Your task to perform on an android device: toggle pop-ups in chrome Image 0: 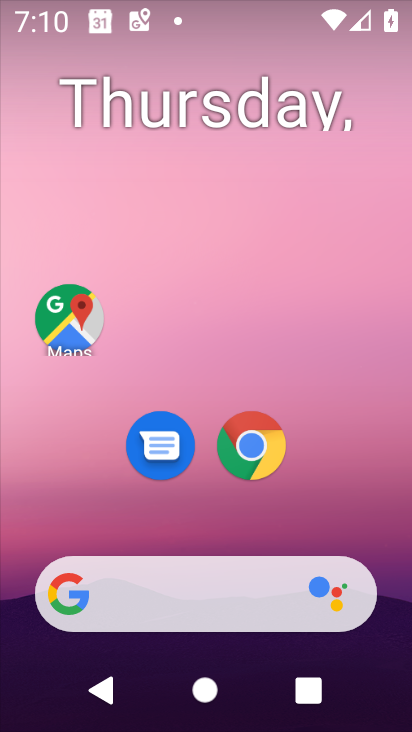
Step 0: drag from (392, 600) to (302, 67)
Your task to perform on an android device: toggle pop-ups in chrome Image 1: 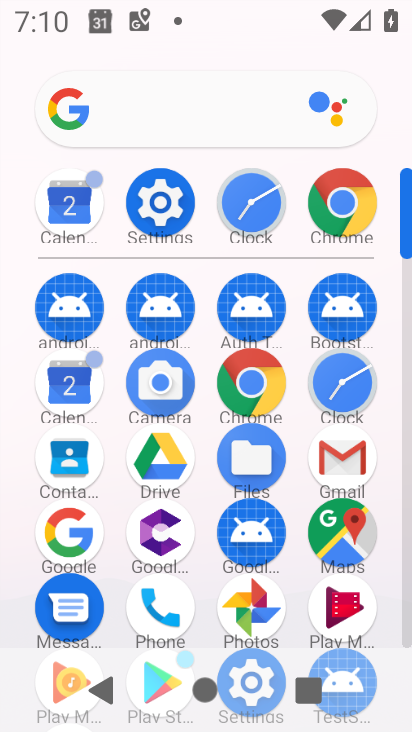
Step 1: click (359, 213)
Your task to perform on an android device: toggle pop-ups in chrome Image 2: 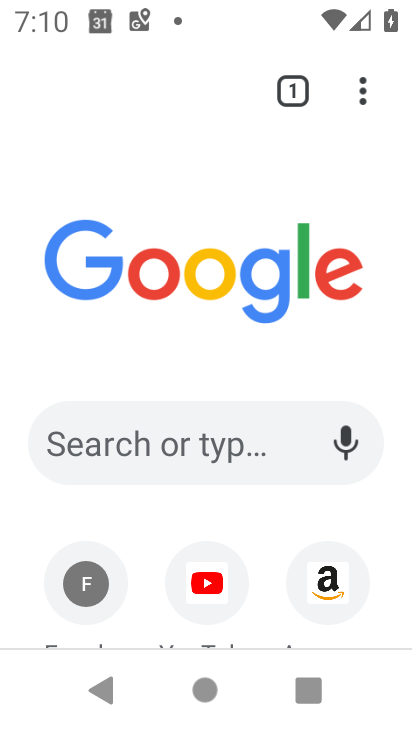
Step 2: click (357, 80)
Your task to perform on an android device: toggle pop-ups in chrome Image 3: 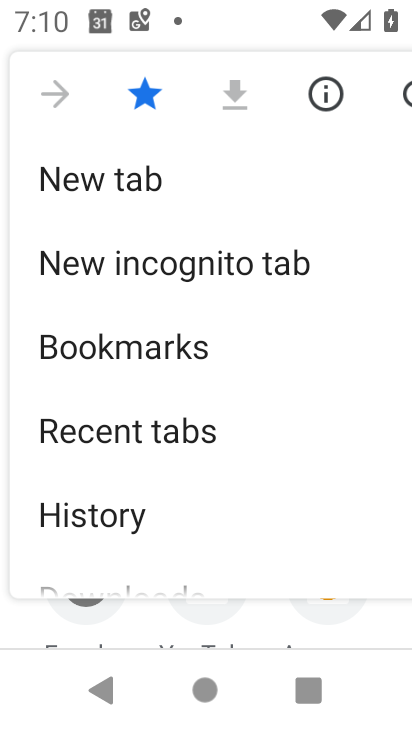
Step 3: drag from (176, 526) to (182, 62)
Your task to perform on an android device: toggle pop-ups in chrome Image 4: 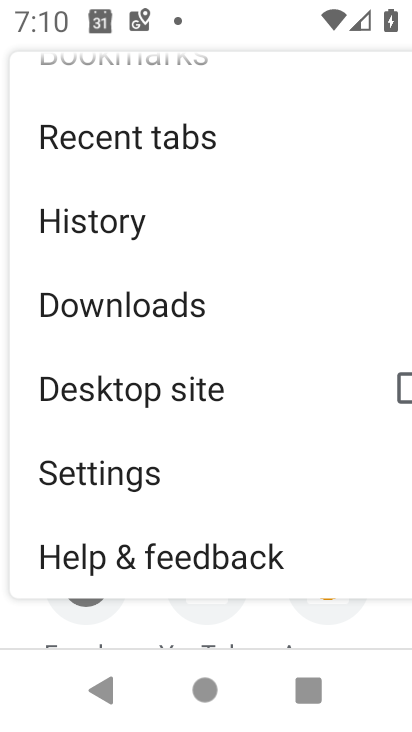
Step 4: click (167, 478)
Your task to perform on an android device: toggle pop-ups in chrome Image 5: 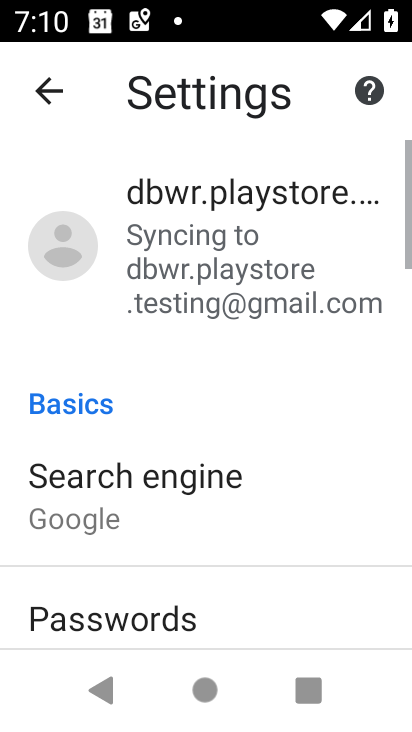
Step 5: drag from (136, 628) to (201, 220)
Your task to perform on an android device: toggle pop-ups in chrome Image 6: 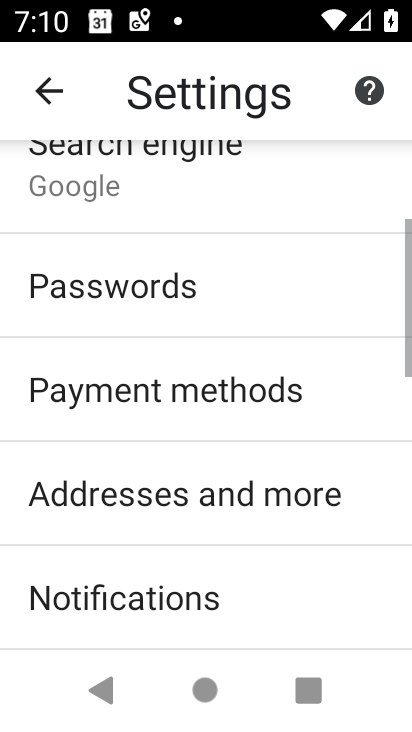
Step 6: click (183, 159)
Your task to perform on an android device: toggle pop-ups in chrome Image 7: 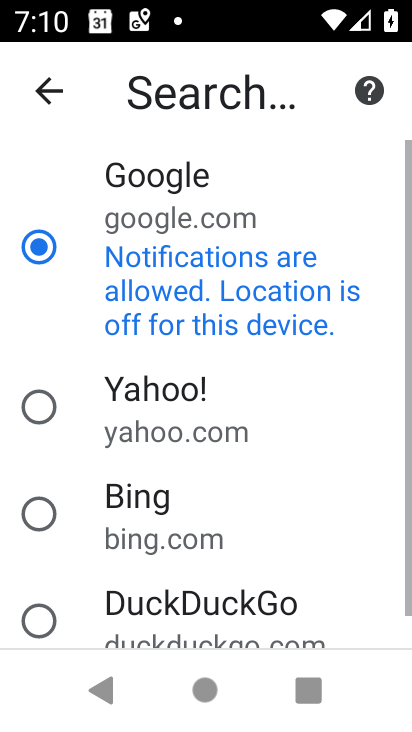
Step 7: drag from (153, 555) to (194, 255)
Your task to perform on an android device: toggle pop-ups in chrome Image 8: 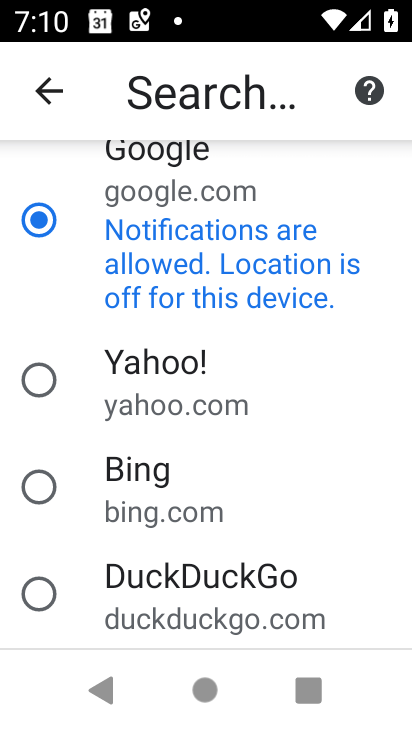
Step 8: press back button
Your task to perform on an android device: toggle pop-ups in chrome Image 9: 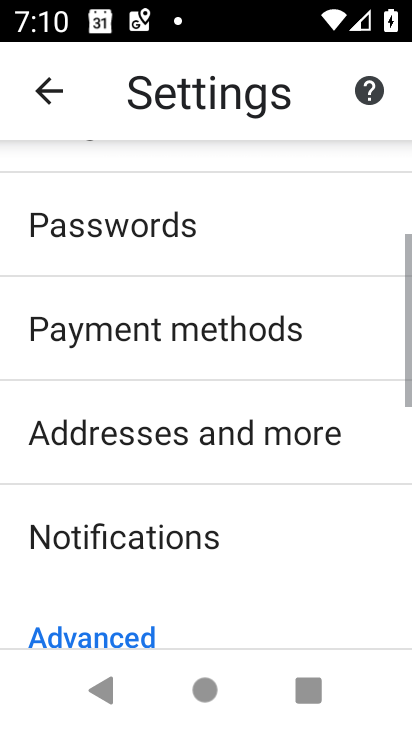
Step 9: drag from (284, 566) to (292, 210)
Your task to perform on an android device: toggle pop-ups in chrome Image 10: 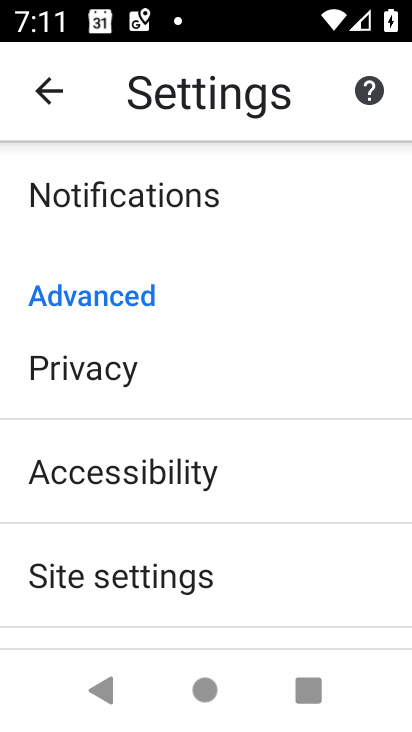
Step 10: click (228, 553)
Your task to perform on an android device: toggle pop-ups in chrome Image 11: 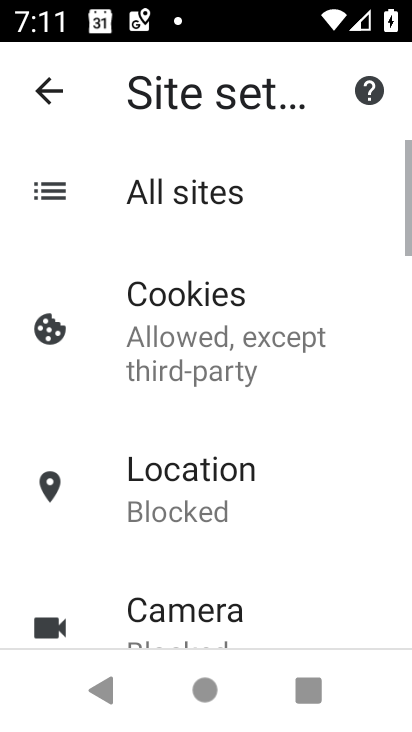
Step 11: drag from (228, 553) to (254, 287)
Your task to perform on an android device: toggle pop-ups in chrome Image 12: 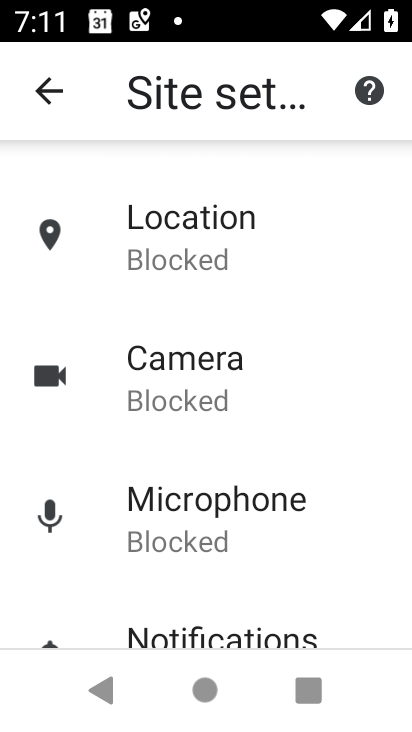
Step 12: drag from (225, 586) to (204, 147)
Your task to perform on an android device: toggle pop-ups in chrome Image 13: 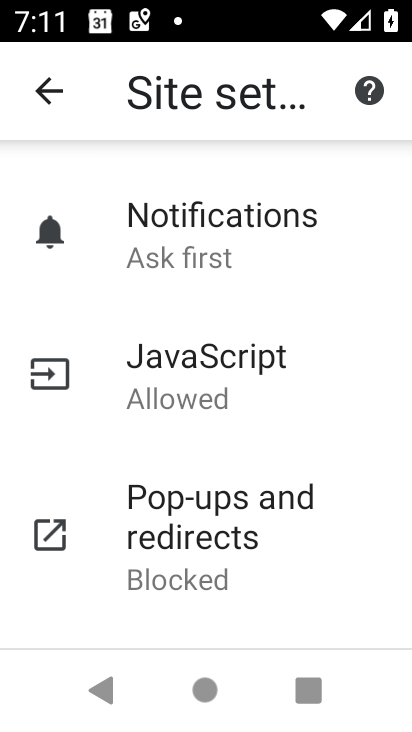
Step 13: click (267, 489)
Your task to perform on an android device: toggle pop-ups in chrome Image 14: 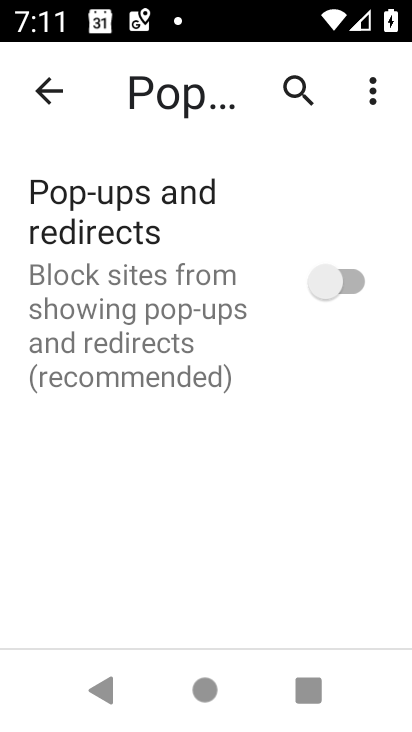
Step 14: click (338, 310)
Your task to perform on an android device: toggle pop-ups in chrome Image 15: 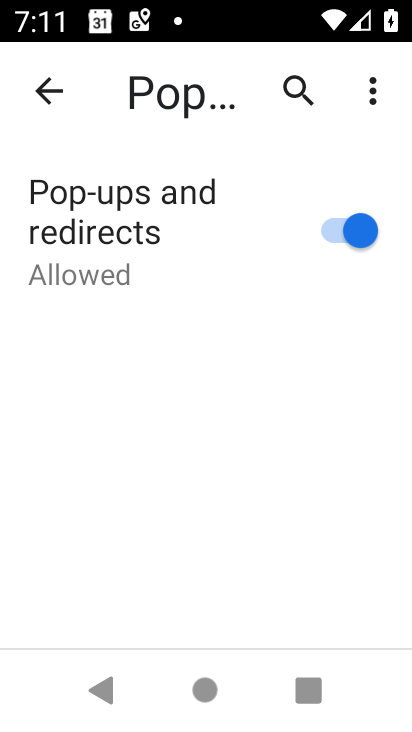
Step 15: task complete